Your task to perform on an android device: Is it going to rain tomorrow? Image 0: 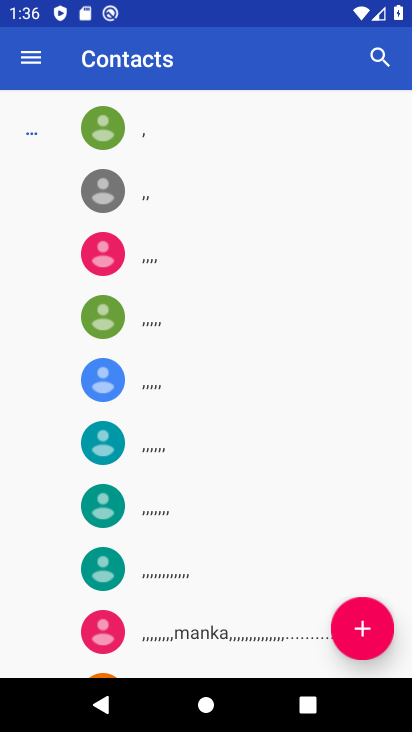
Step 0: press home button
Your task to perform on an android device: Is it going to rain tomorrow? Image 1: 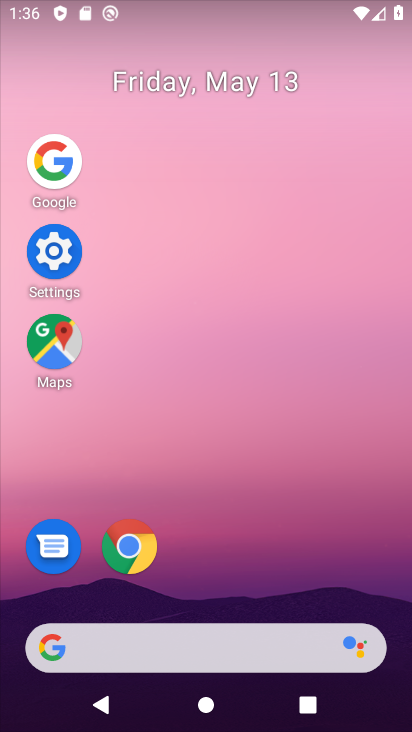
Step 1: click (142, 551)
Your task to perform on an android device: Is it going to rain tomorrow? Image 2: 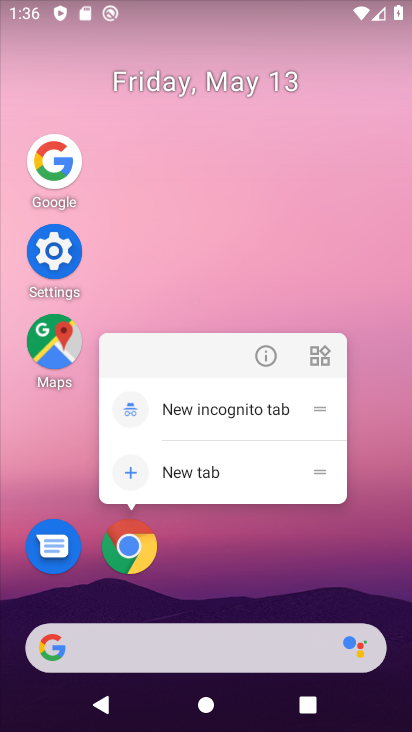
Step 2: click (125, 535)
Your task to perform on an android device: Is it going to rain tomorrow? Image 3: 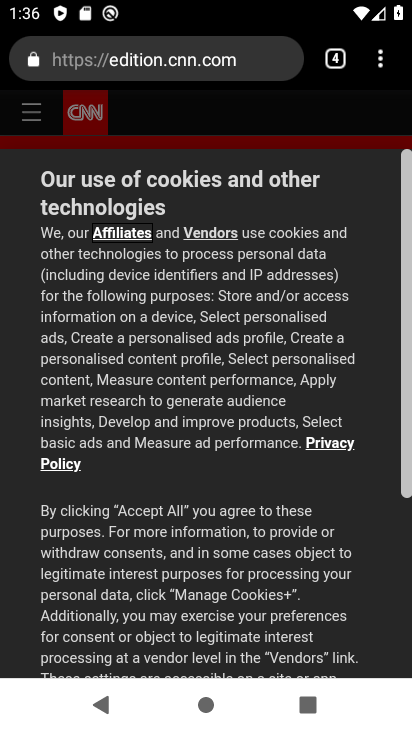
Step 3: press home button
Your task to perform on an android device: Is it going to rain tomorrow? Image 4: 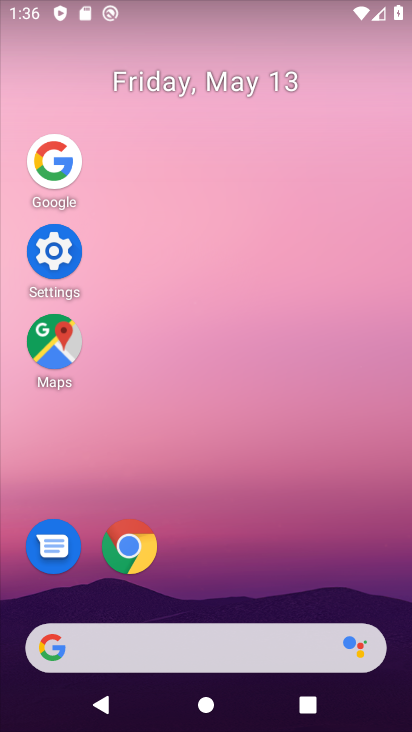
Step 4: click (54, 181)
Your task to perform on an android device: Is it going to rain tomorrow? Image 5: 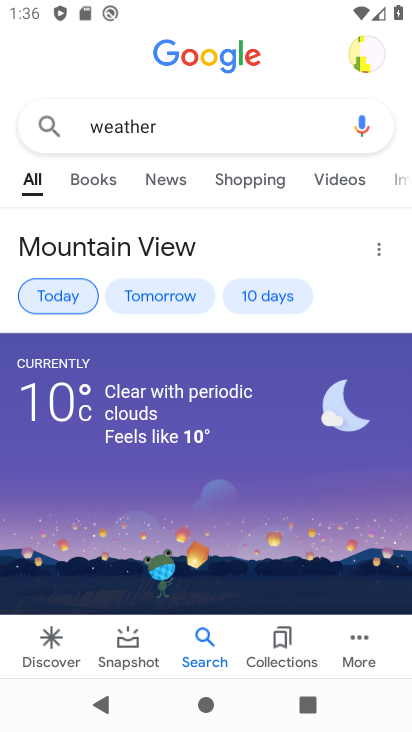
Step 5: click (158, 296)
Your task to perform on an android device: Is it going to rain tomorrow? Image 6: 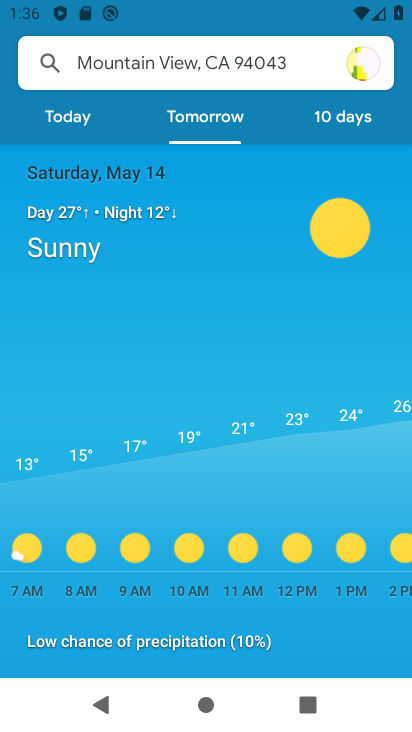
Step 6: task complete